Your task to perform on an android device: turn off priority inbox in the gmail app Image 0: 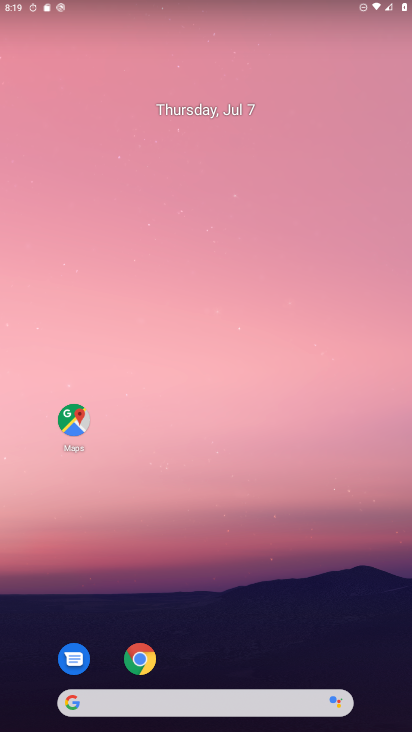
Step 0: drag from (382, 687) to (237, 4)
Your task to perform on an android device: turn off priority inbox in the gmail app Image 1: 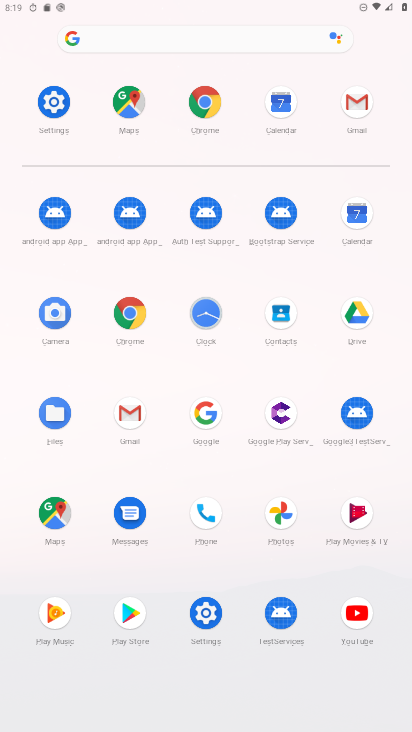
Step 1: click (364, 105)
Your task to perform on an android device: turn off priority inbox in the gmail app Image 2: 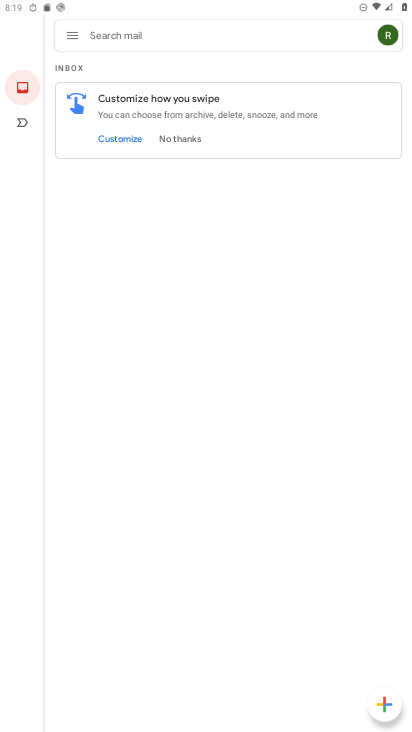
Step 2: click (69, 37)
Your task to perform on an android device: turn off priority inbox in the gmail app Image 3: 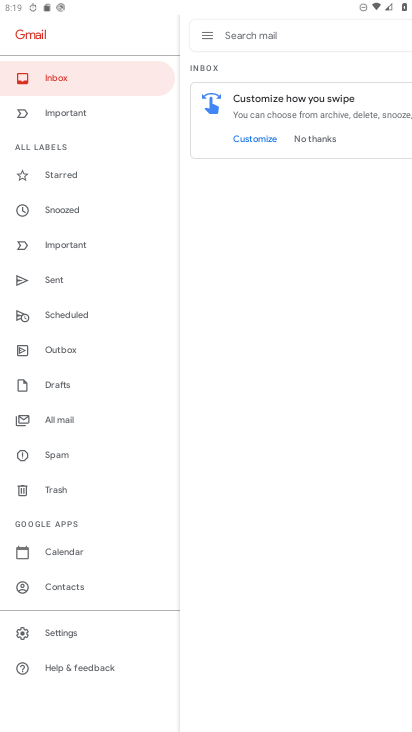
Step 3: click (71, 633)
Your task to perform on an android device: turn off priority inbox in the gmail app Image 4: 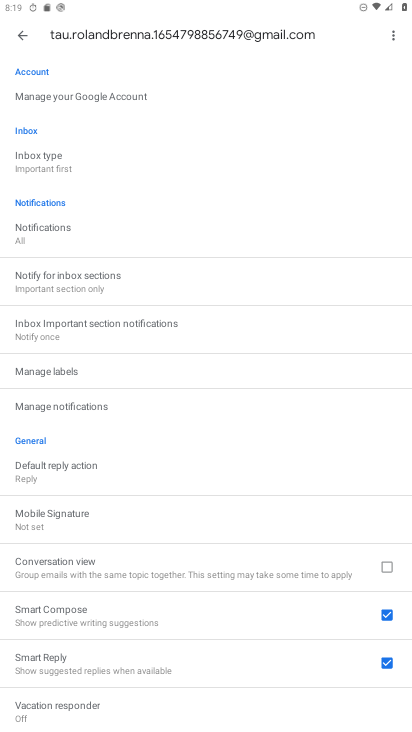
Step 4: click (69, 165)
Your task to perform on an android device: turn off priority inbox in the gmail app Image 5: 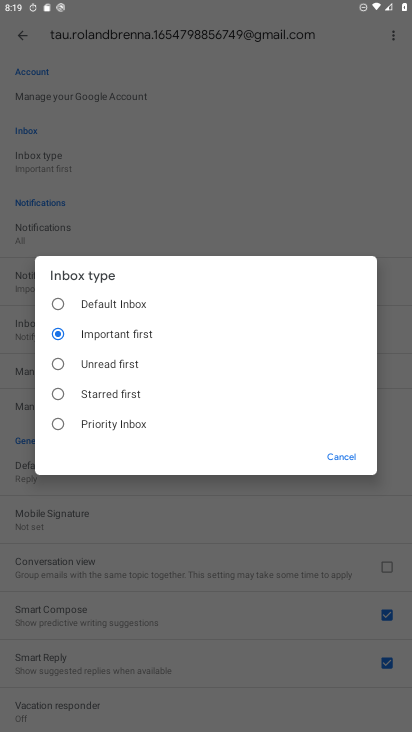
Step 5: click (57, 303)
Your task to perform on an android device: turn off priority inbox in the gmail app Image 6: 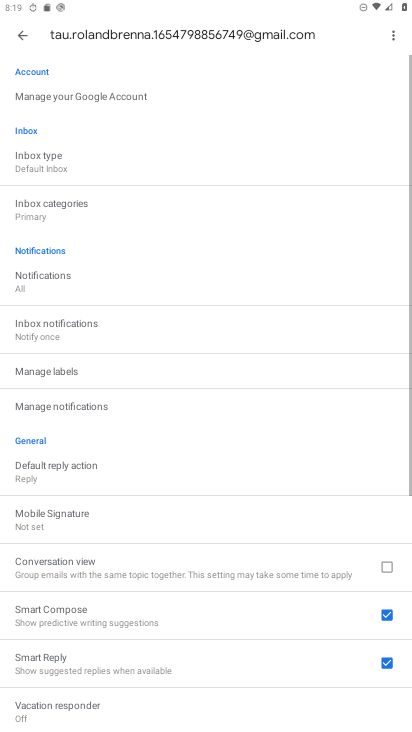
Step 6: task complete